Your task to perform on an android device: open app "Walmart Shopping & Grocery" Image 0: 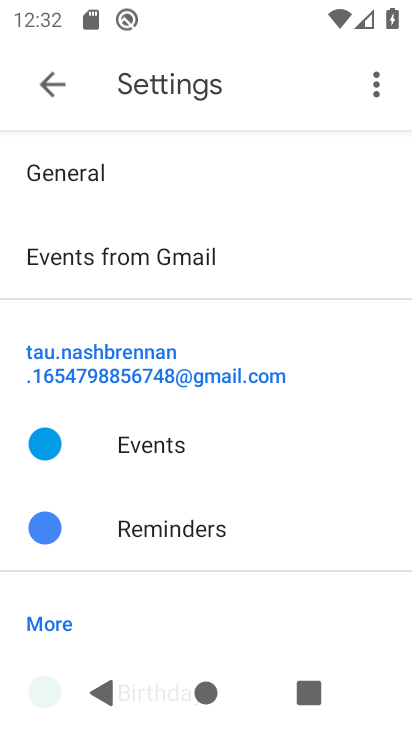
Step 0: press home button
Your task to perform on an android device: open app "Walmart Shopping & Grocery" Image 1: 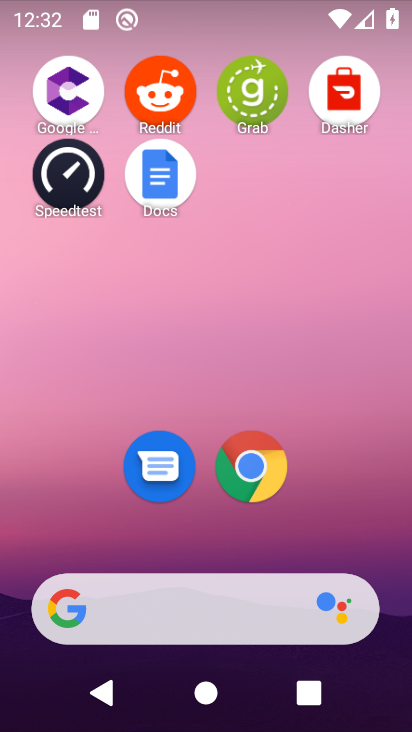
Step 1: drag from (252, 540) to (151, 6)
Your task to perform on an android device: open app "Walmart Shopping & Grocery" Image 2: 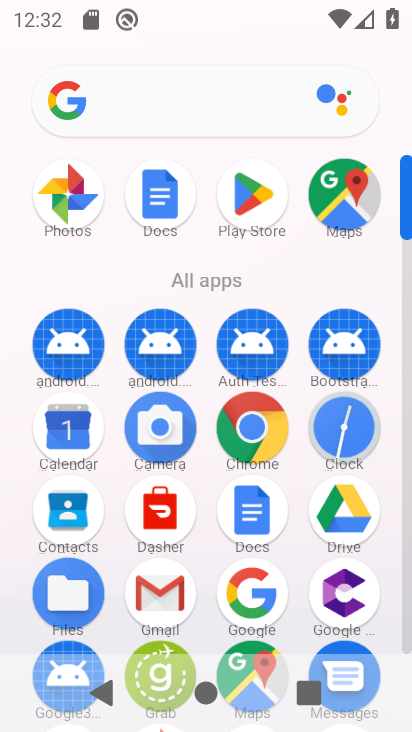
Step 2: click (240, 219)
Your task to perform on an android device: open app "Walmart Shopping & Grocery" Image 3: 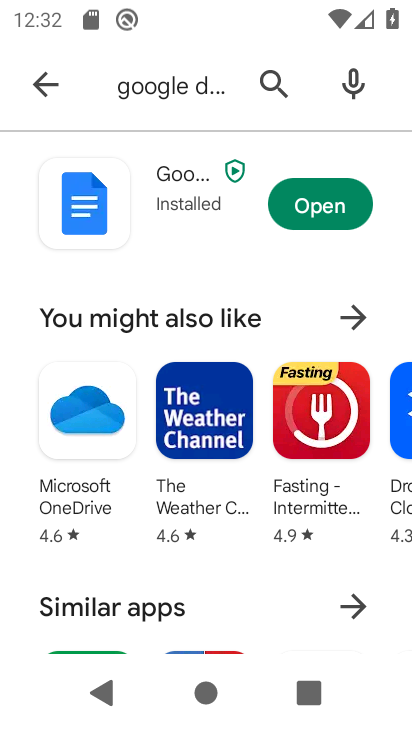
Step 3: click (152, 97)
Your task to perform on an android device: open app "Walmart Shopping & Grocery" Image 4: 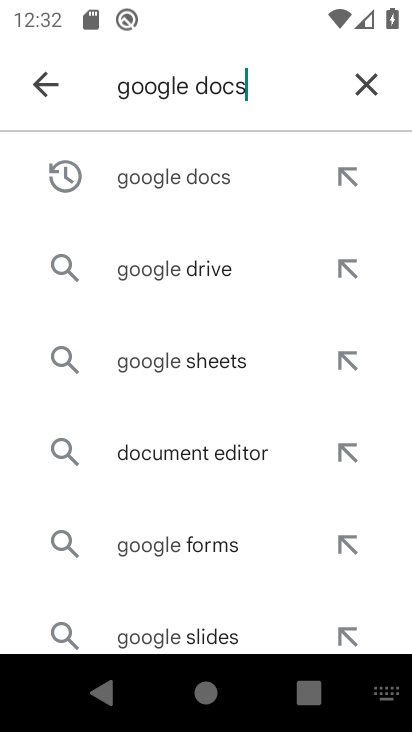
Step 4: click (373, 91)
Your task to perform on an android device: open app "Walmart Shopping & Grocery" Image 5: 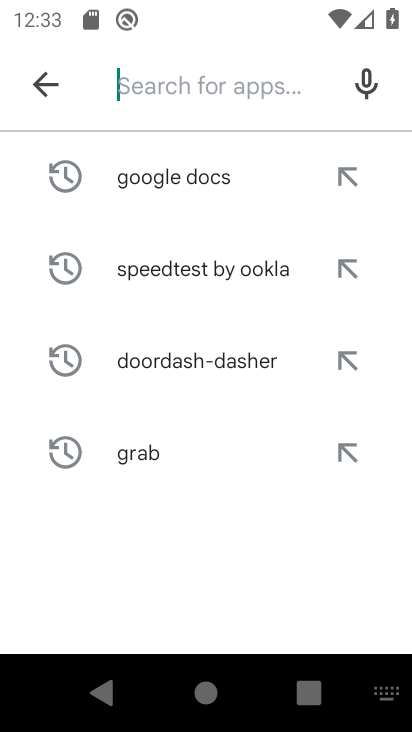
Step 5: type "walmart"
Your task to perform on an android device: open app "Walmart Shopping & Grocery" Image 6: 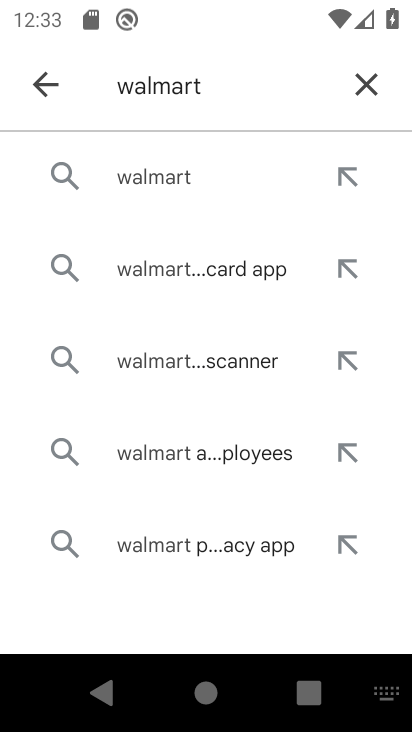
Step 6: click (128, 194)
Your task to perform on an android device: open app "Walmart Shopping & Grocery" Image 7: 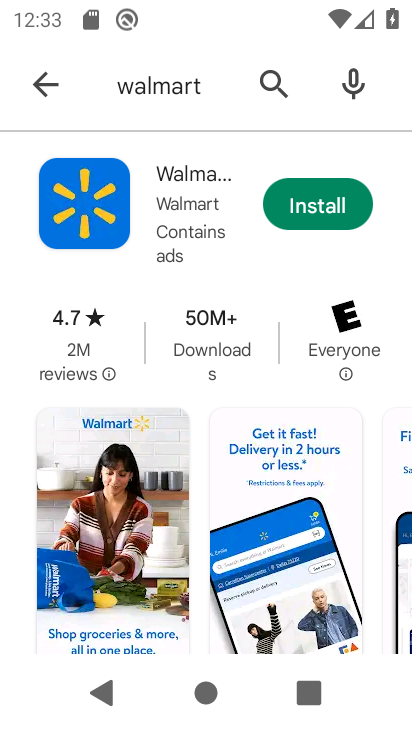
Step 7: task complete